Your task to perform on an android device: Open accessibility settings Image 0: 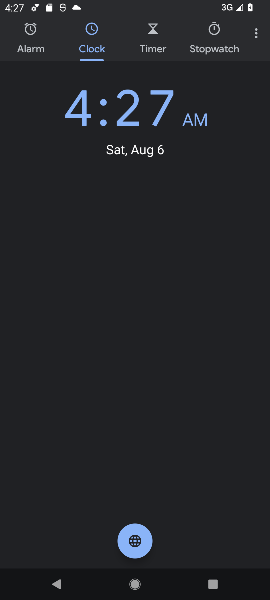
Step 0: press home button
Your task to perform on an android device: Open accessibility settings Image 1: 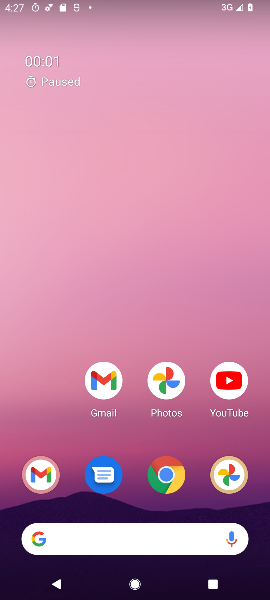
Step 1: drag from (13, 587) to (158, 251)
Your task to perform on an android device: Open accessibility settings Image 2: 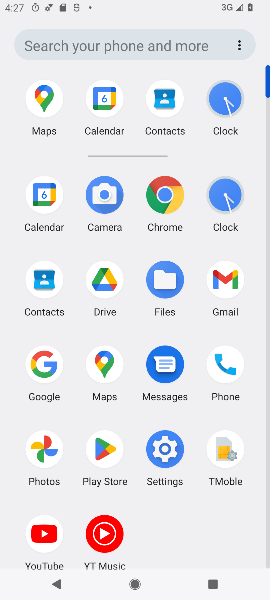
Step 2: click (163, 456)
Your task to perform on an android device: Open accessibility settings Image 3: 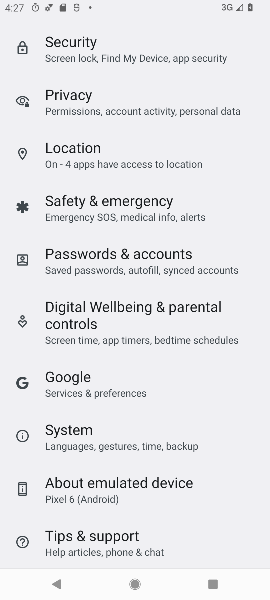
Step 3: drag from (185, 551) to (176, 162)
Your task to perform on an android device: Open accessibility settings Image 4: 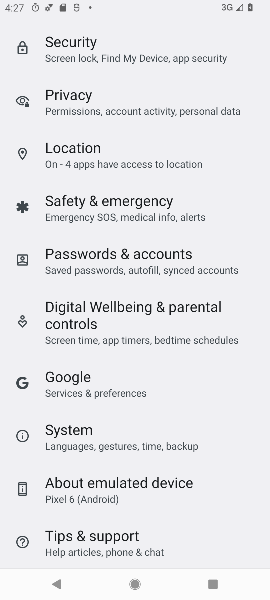
Step 4: drag from (245, 34) to (250, 268)
Your task to perform on an android device: Open accessibility settings Image 5: 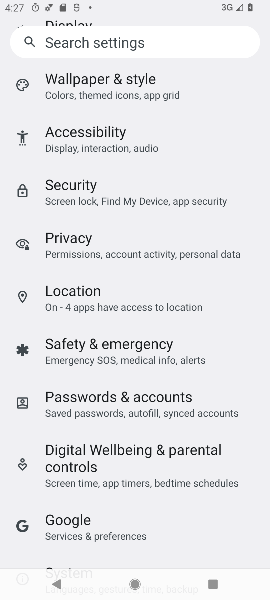
Step 5: click (106, 136)
Your task to perform on an android device: Open accessibility settings Image 6: 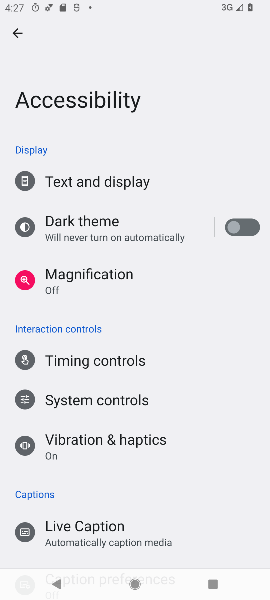
Step 6: task complete